Your task to perform on an android device: see creations saved in the google photos Image 0: 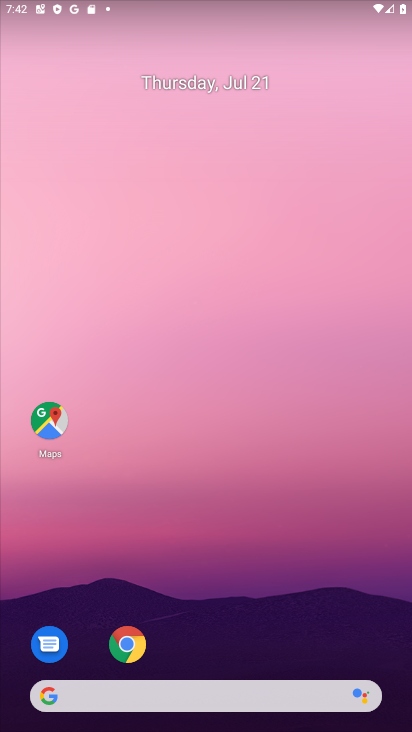
Step 0: drag from (223, 475) to (215, 164)
Your task to perform on an android device: see creations saved in the google photos Image 1: 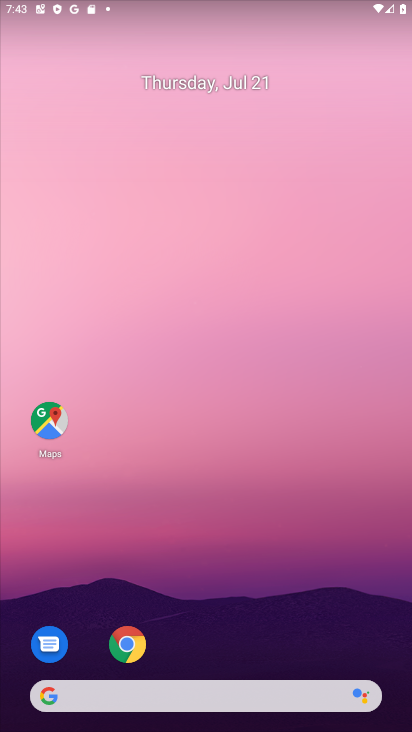
Step 1: drag from (243, 612) to (272, 221)
Your task to perform on an android device: see creations saved in the google photos Image 2: 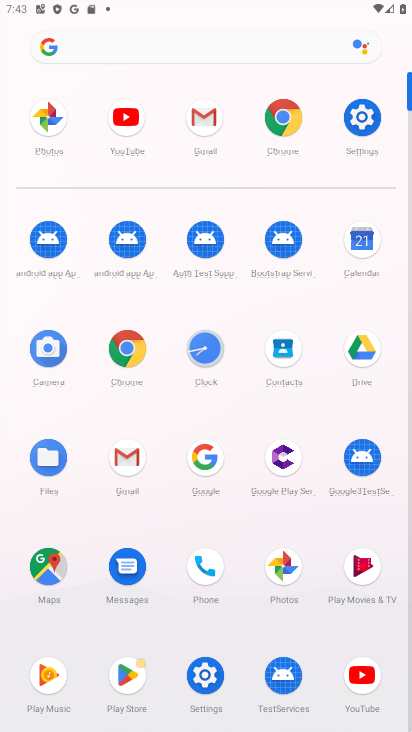
Step 2: click (283, 568)
Your task to perform on an android device: see creations saved in the google photos Image 3: 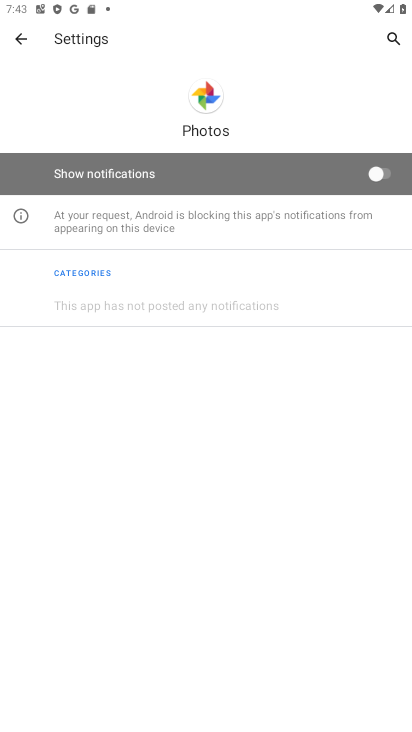
Step 3: click (22, 26)
Your task to perform on an android device: see creations saved in the google photos Image 4: 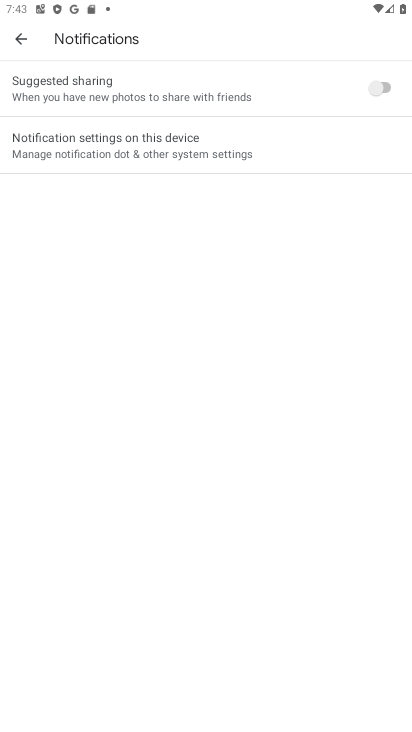
Step 4: click (27, 40)
Your task to perform on an android device: see creations saved in the google photos Image 5: 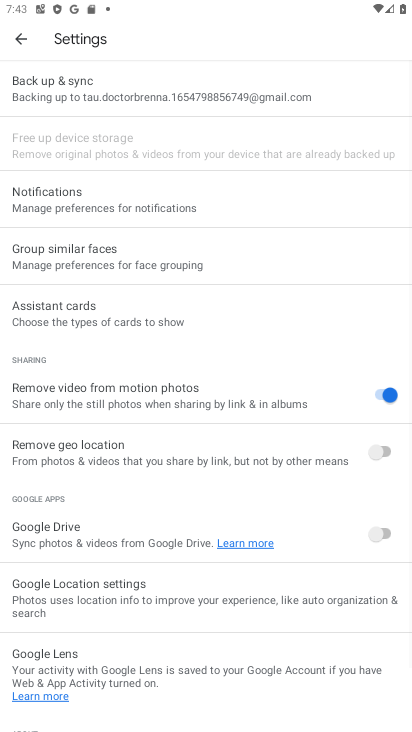
Step 5: click (26, 41)
Your task to perform on an android device: see creations saved in the google photos Image 6: 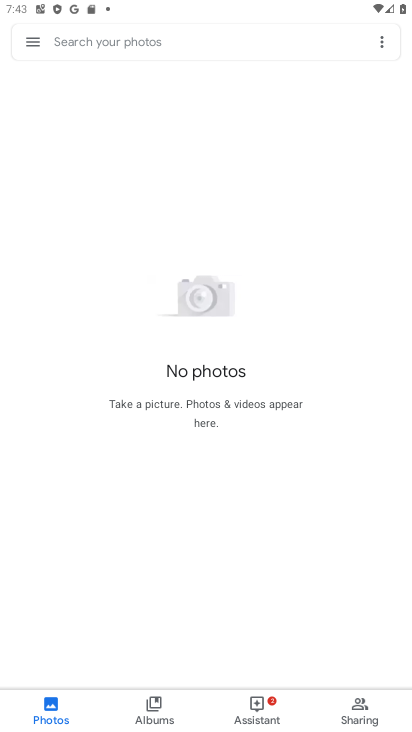
Step 6: task complete